Your task to perform on an android device: empty trash in google photos Image 0: 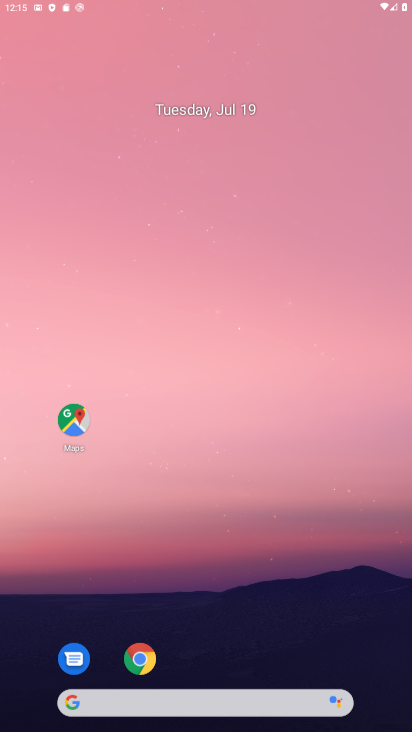
Step 0: click (194, 237)
Your task to perform on an android device: empty trash in google photos Image 1: 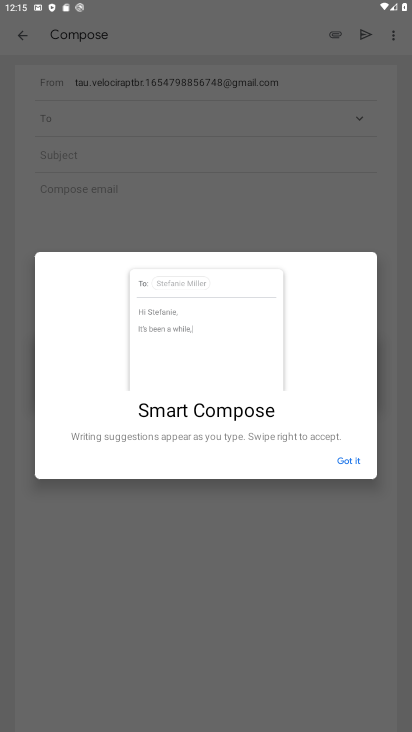
Step 1: press home button
Your task to perform on an android device: empty trash in google photos Image 2: 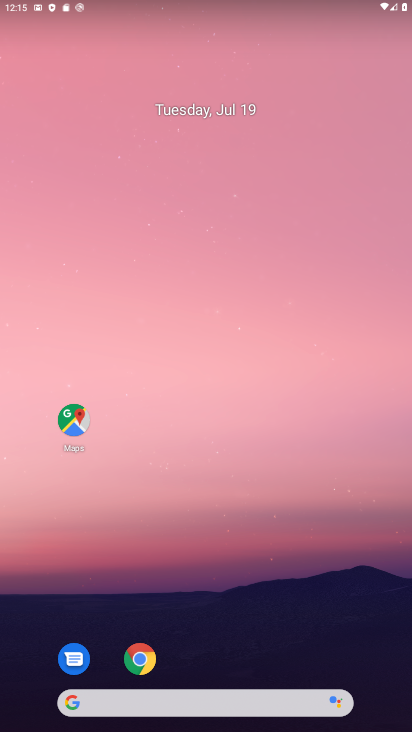
Step 2: drag from (204, 695) to (143, 110)
Your task to perform on an android device: empty trash in google photos Image 3: 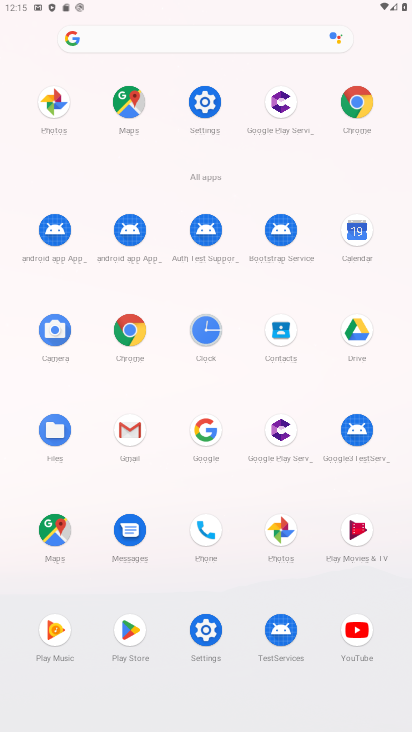
Step 3: click (277, 525)
Your task to perform on an android device: empty trash in google photos Image 4: 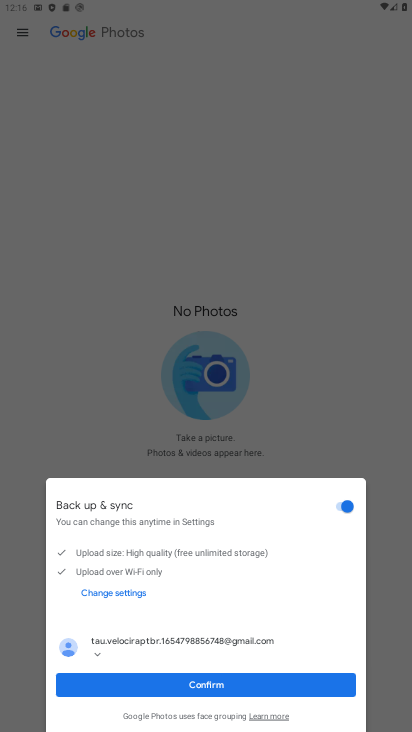
Step 4: click (236, 684)
Your task to perform on an android device: empty trash in google photos Image 5: 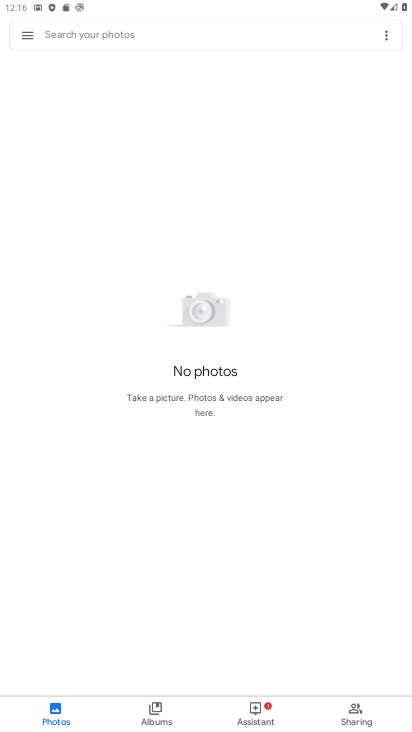
Step 5: click (27, 34)
Your task to perform on an android device: empty trash in google photos Image 6: 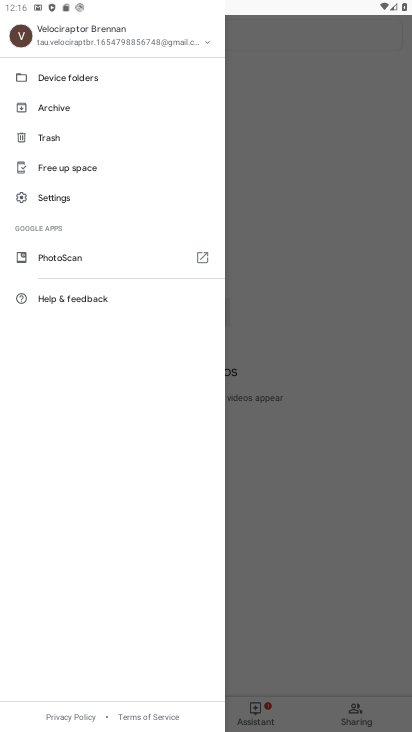
Step 6: click (49, 142)
Your task to perform on an android device: empty trash in google photos Image 7: 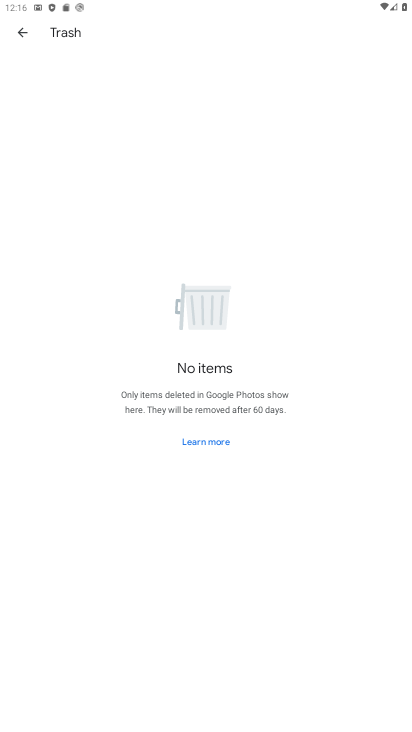
Step 7: task complete